Your task to perform on an android device: What's the news about the US dollar exchange rate? Image 0: 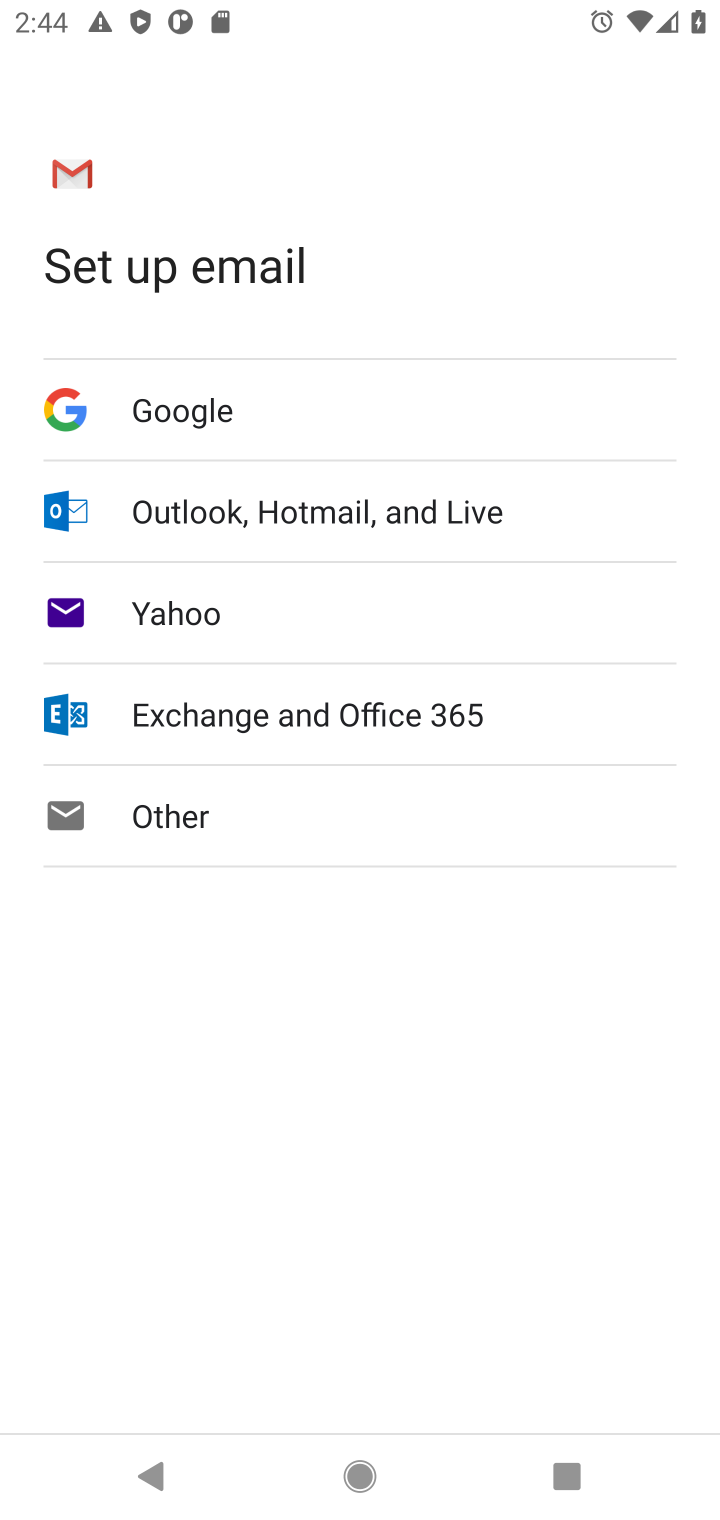
Step 0: press home button
Your task to perform on an android device: What's the news about the US dollar exchange rate? Image 1: 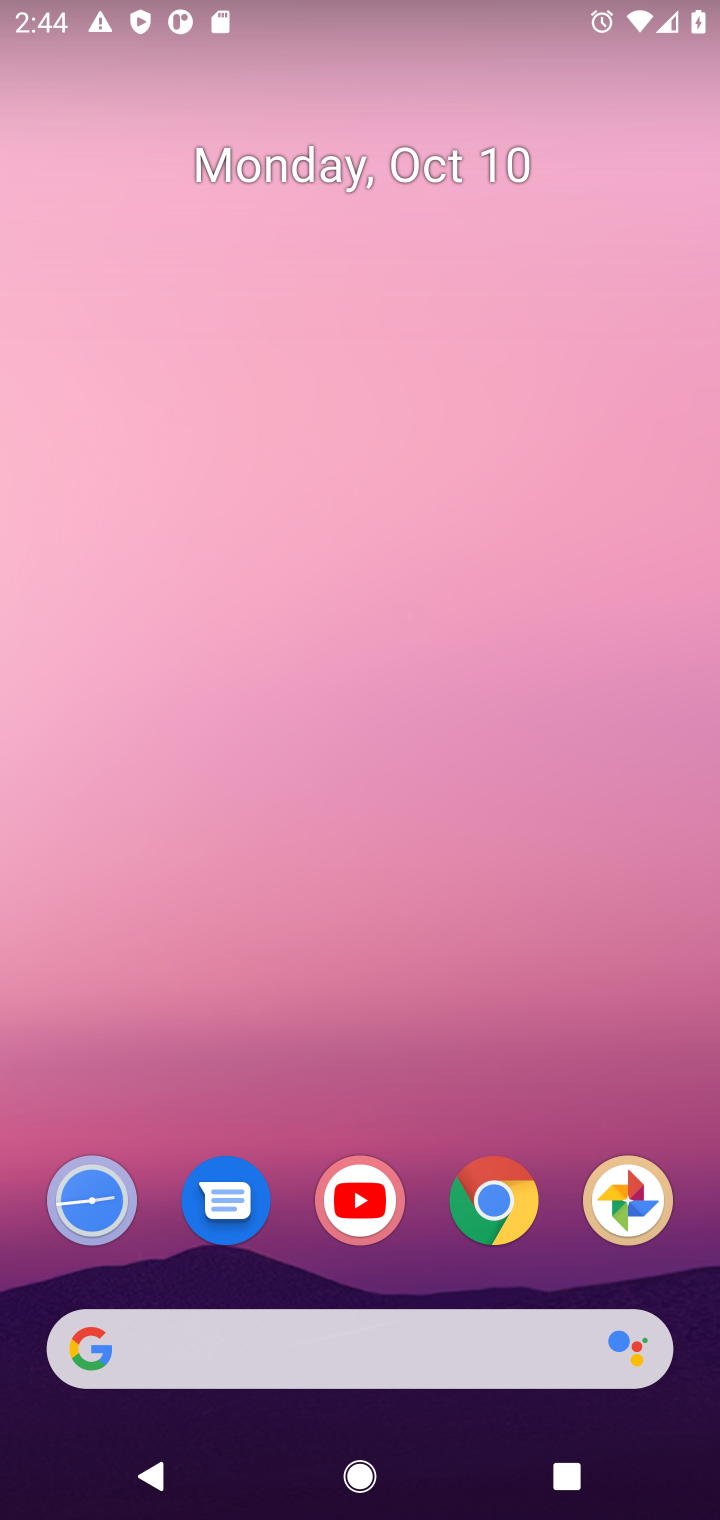
Step 1: click (495, 1208)
Your task to perform on an android device: What's the news about the US dollar exchange rate? Image 2: 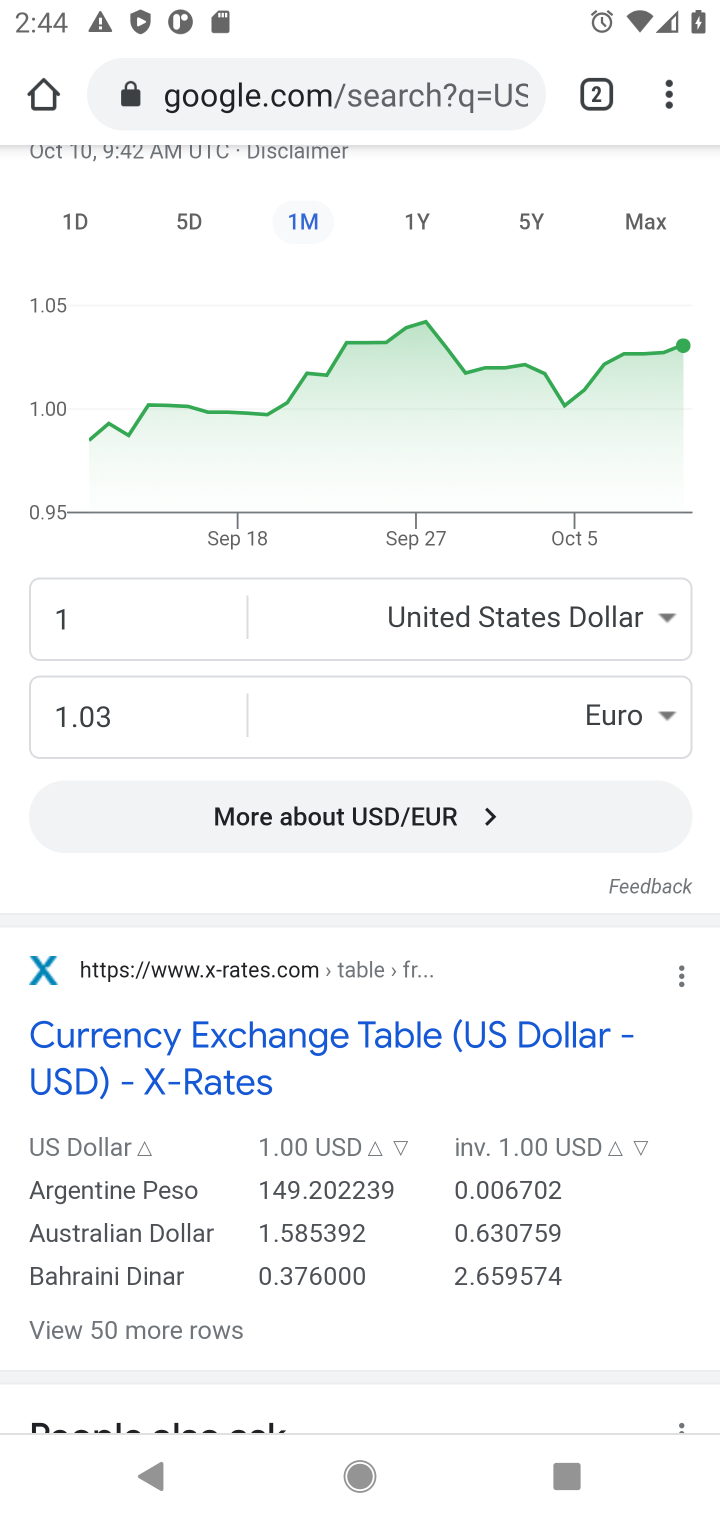
Step 2: click (417, 98)
Your task to perform on an android device: What's the news about the US dollar exchange rate? Image 3: 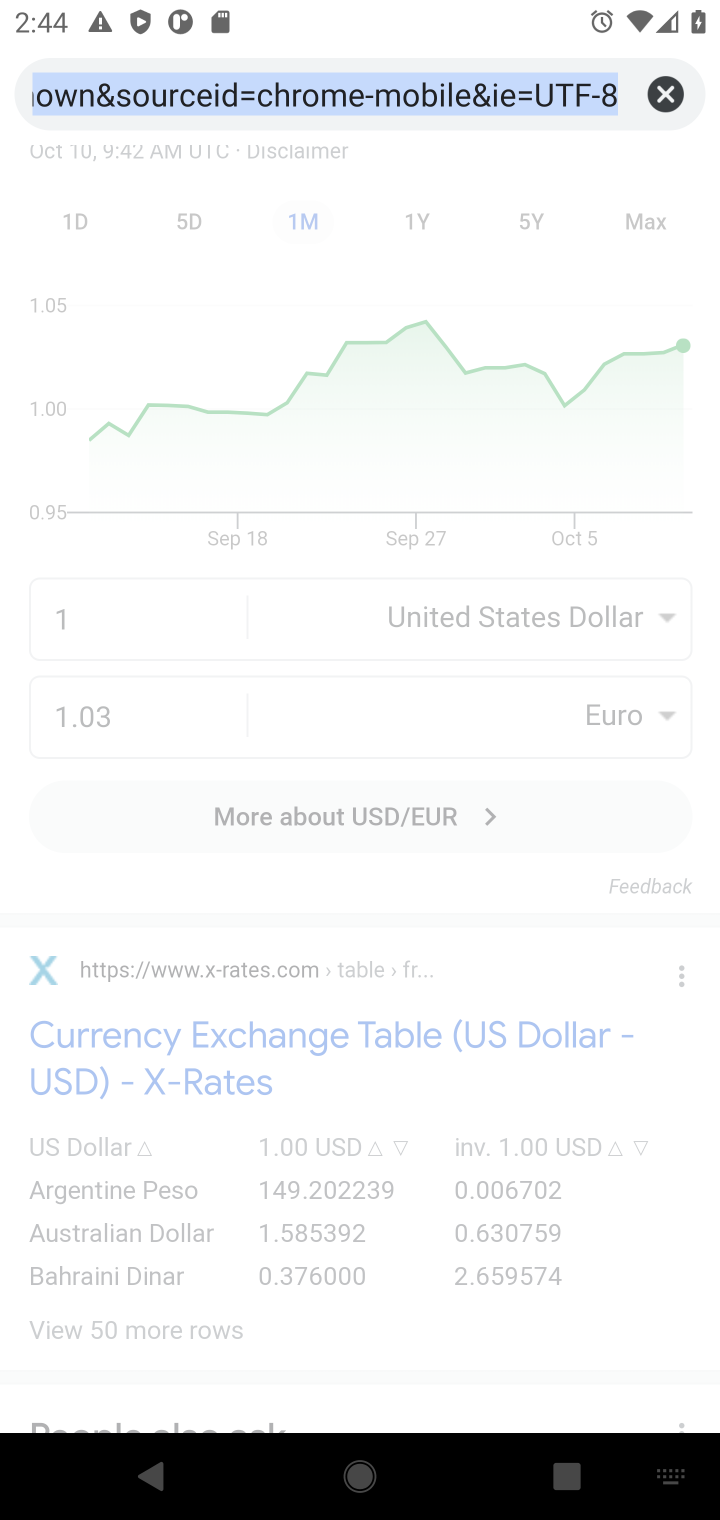
Step 3: type "news about the US dollar exchange rate"
Your task to perform on an android device: What's the news about the US dollar exchange rate? Image 4: 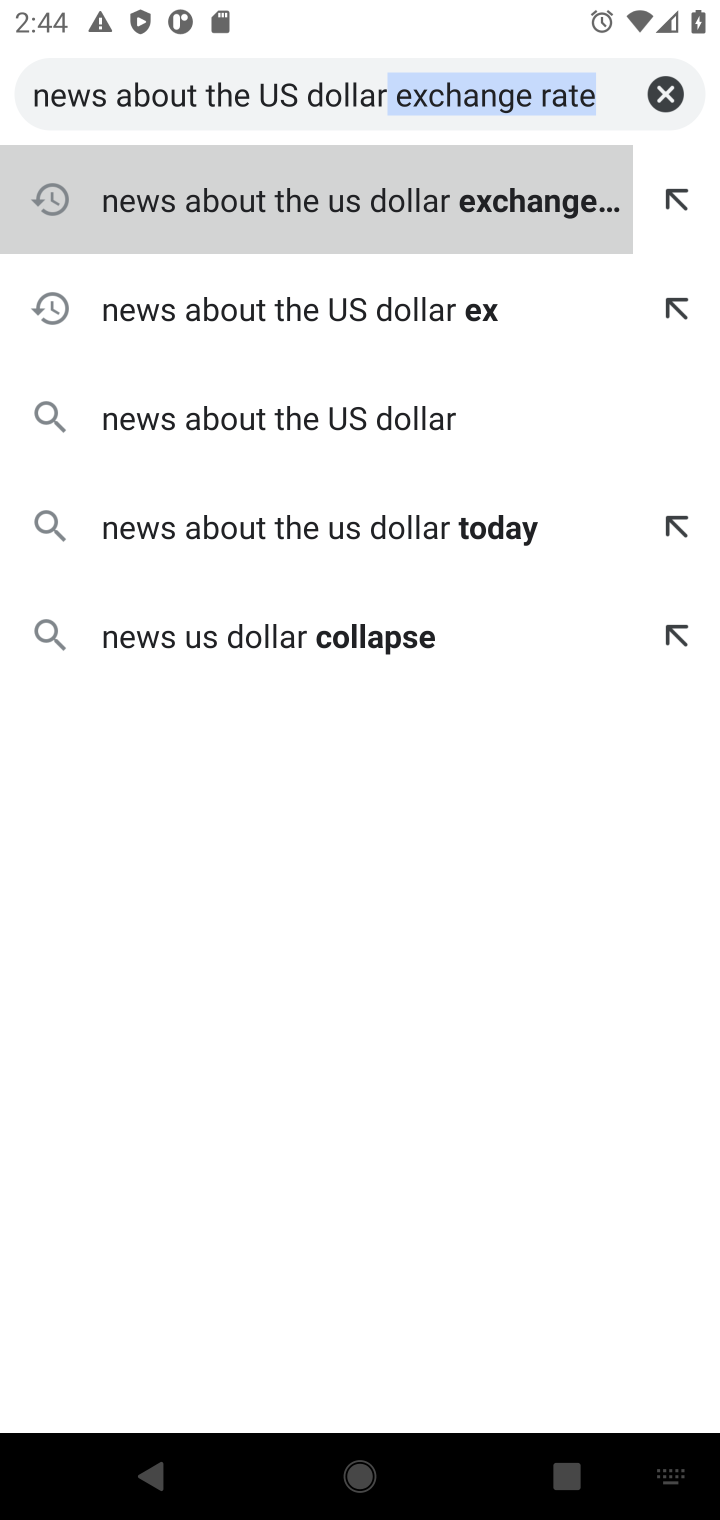
Step 4: type ""
Your task to perform on an android device: What's the news about the US dollar exchange rate? Image 5: 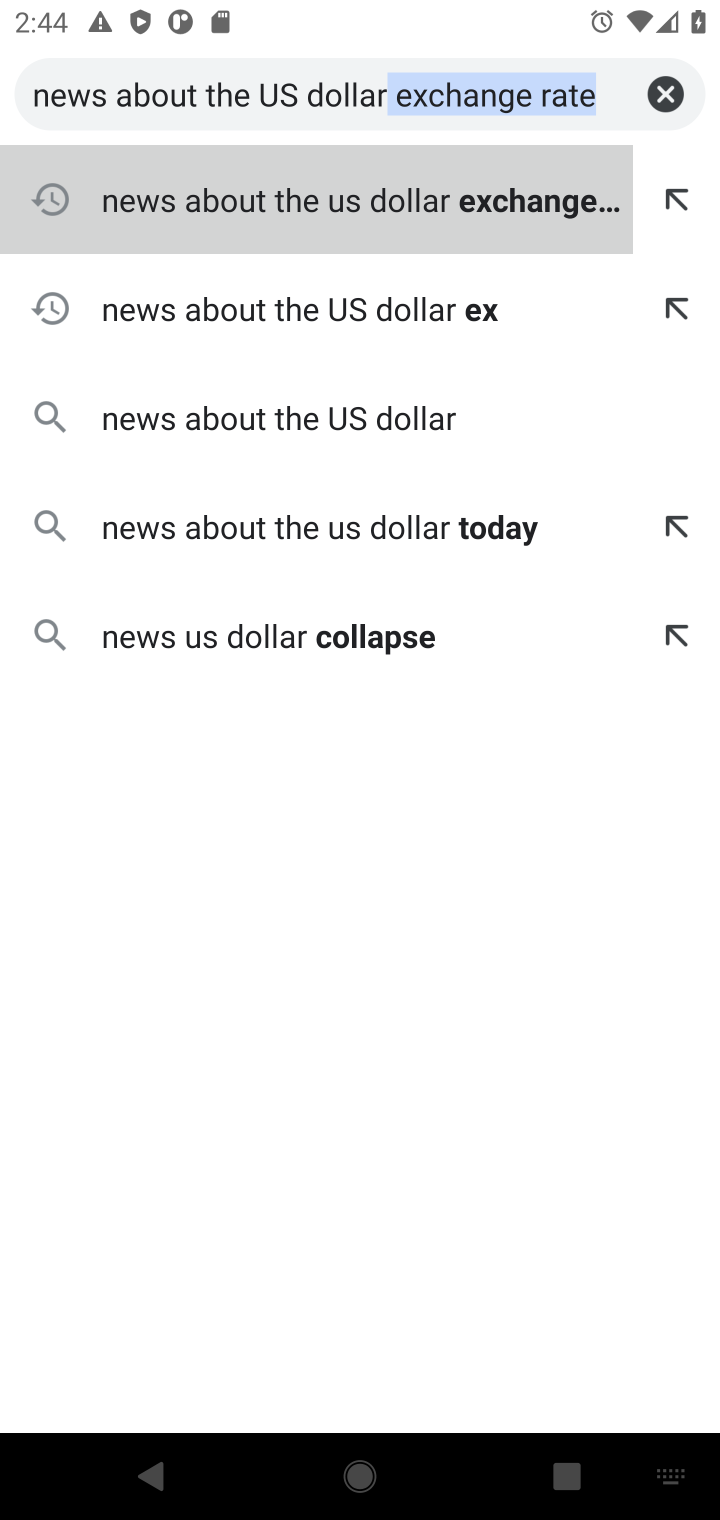
Step 5: click (447, 207)
Your task to perform on an android device: What's the news about the US dollar exchange rate? Image 6: 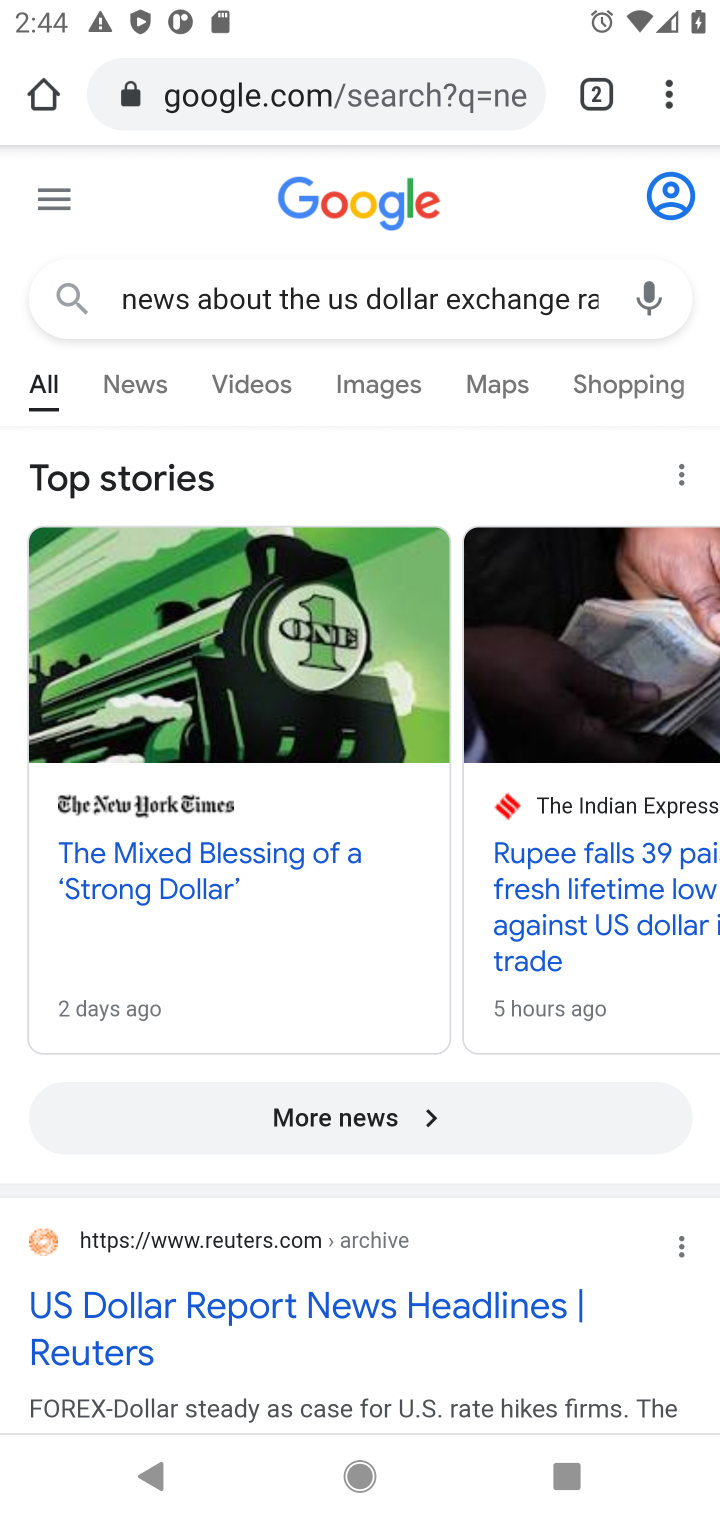
Step 6: click (127, 386)
Your task to perform on an android device: What's the news about the US dollar exchange rate? Image 7: 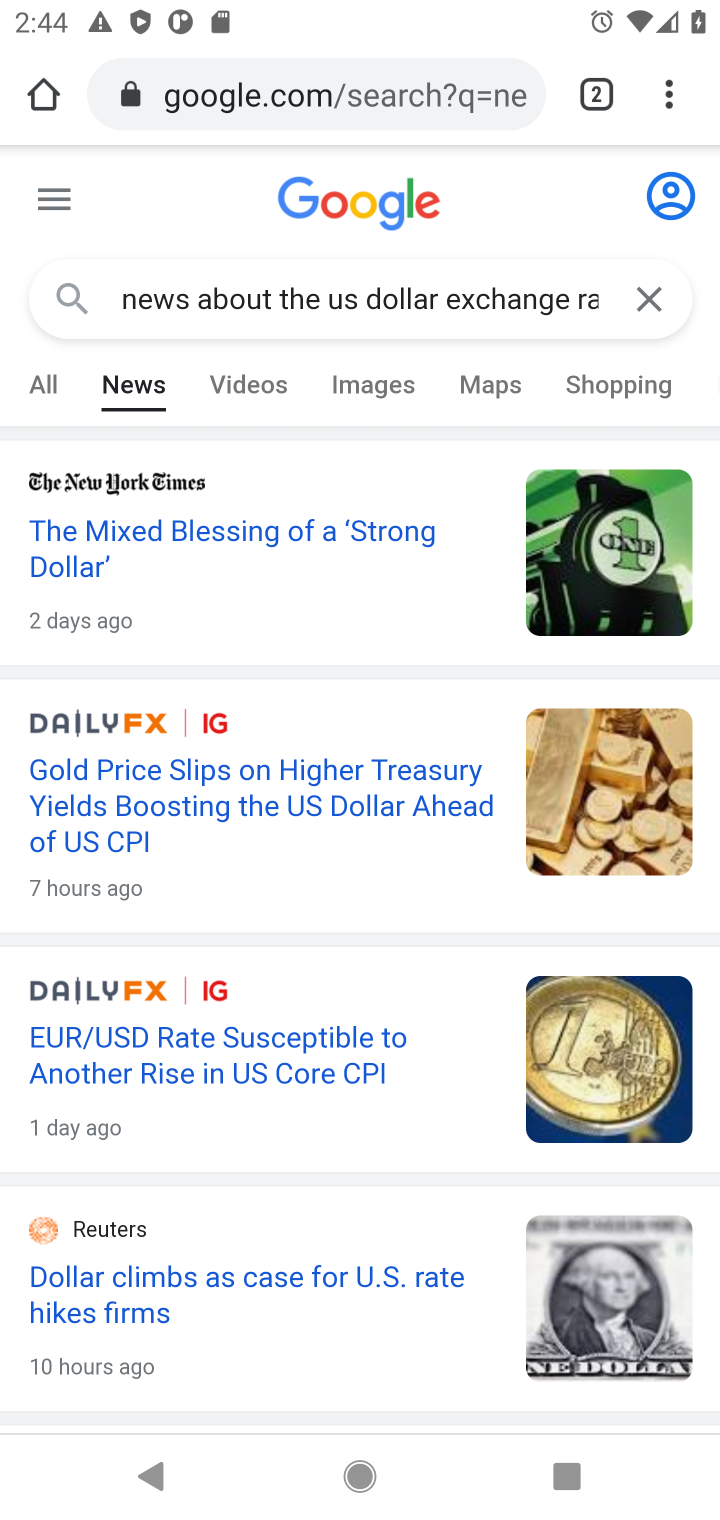
Step 7: task complete